Your task to perform on an android device: toggle pop-ups in chrome Image 0: 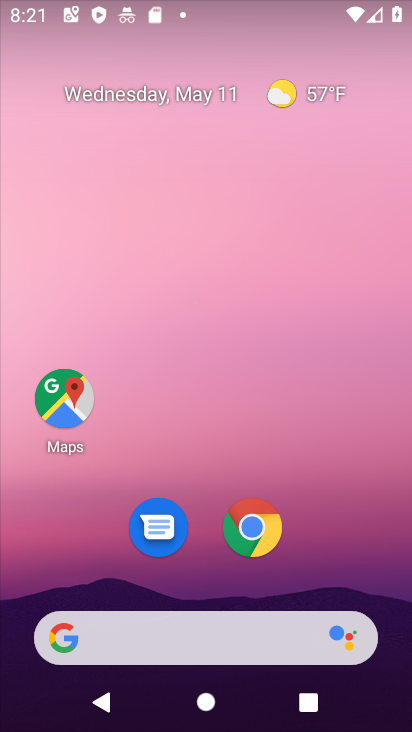
Step 0: click (260, 524)
Your task to perform on an android device: toggle pop-ups in chrome Image 1: 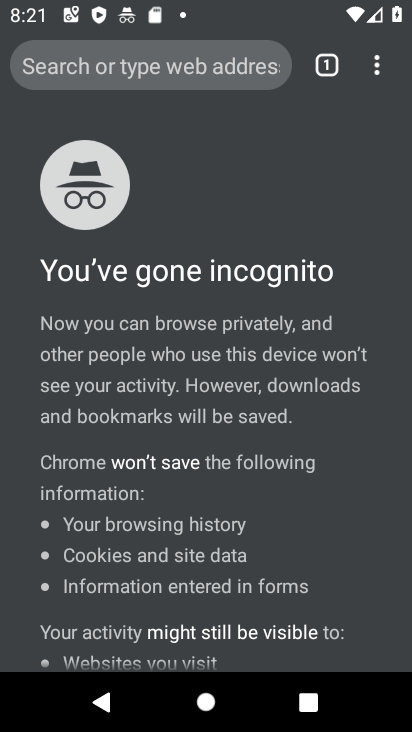
Step 1: click (384, 75)
Your task to perform on an android device: toggle pop-ups in chrome Image 2: 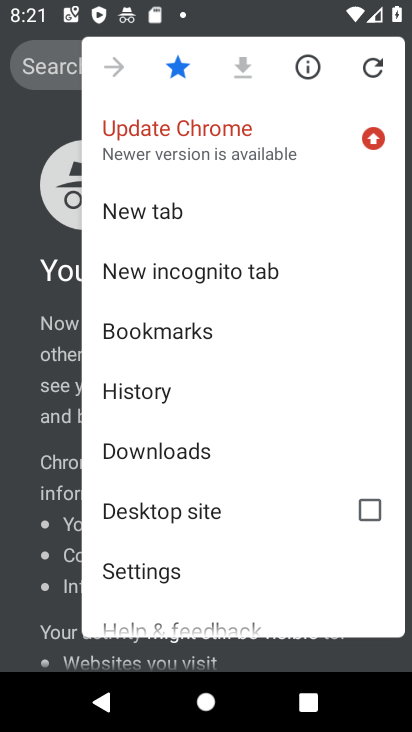
Step 2: drag from (219, 372) to (227, 264)
Your task to perform on an android device: toggle pop-ups in chrome Image 3: 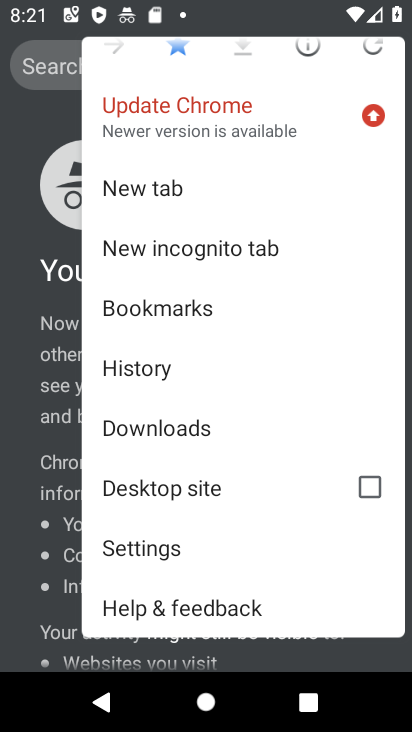
Step 3: click (143, 558)
Your task to perform on an android device: toggle pop-ups in chrome Image 4: 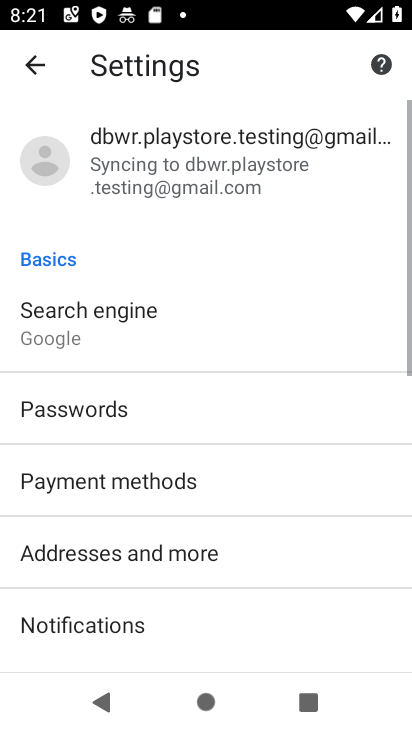
Step 4: drag from (143, 558) to (140, 124)
Your task to perform on an android device: toggle pop-ups in chrome Image 5: 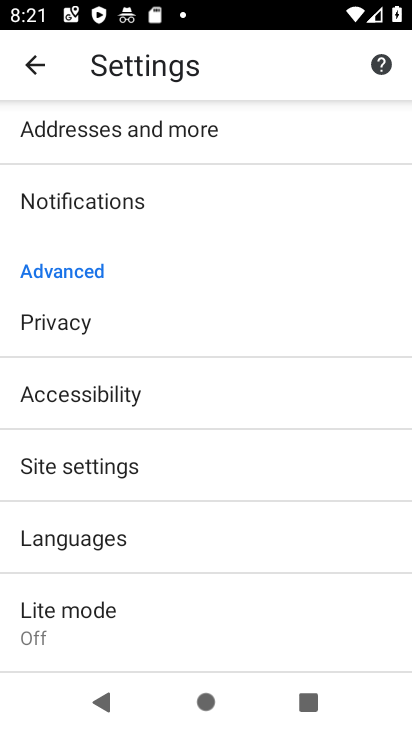
Step 5: click (106, 474)
Your task to perform on an android device: toggle pop-ups in chrome Image 6: 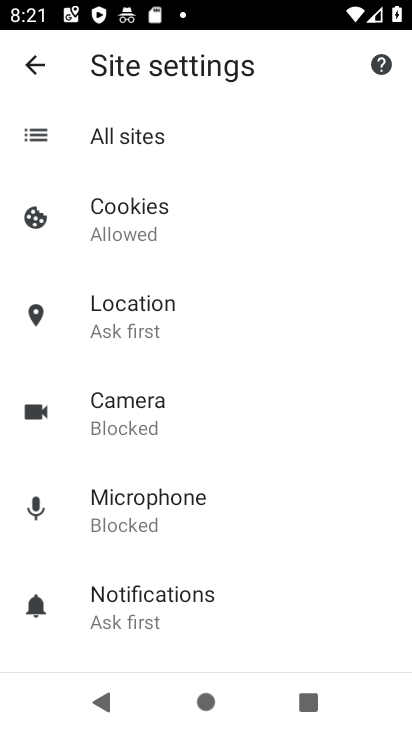
Step 6: drag from (171, 296) to (173, 234)
Your task to perform on an android device: toggle pop-ups in chrome Image 7: 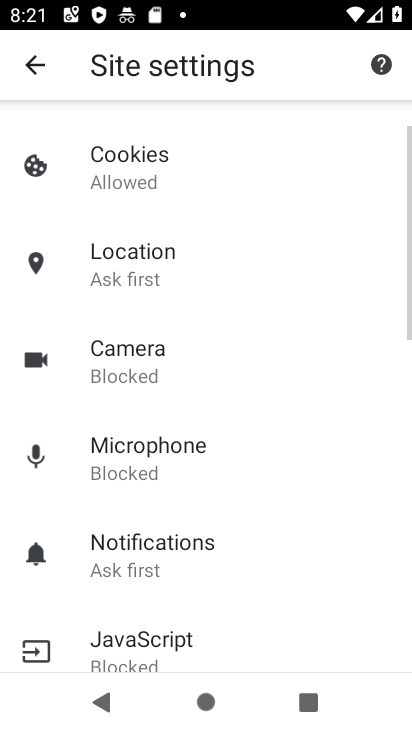
Step 7: drag from (231, 304) to (233, 211)
Your task to perform on an android device: toggle pop-ups in chrome Image 8: 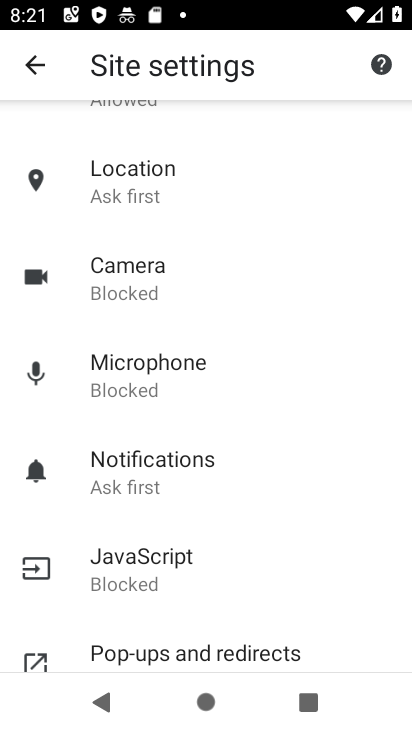
Step 8: drag from (221, 594) to (228, 408)
Your task to perform on an android device: toggle pop-ups in chrome Image 9: 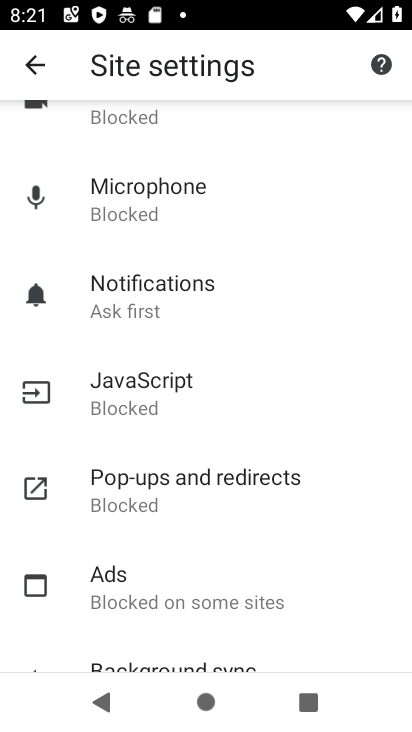
Step 9: click (138, 509)
Your task to perform on an android device: toggle pop-ups in chrome Image 10: 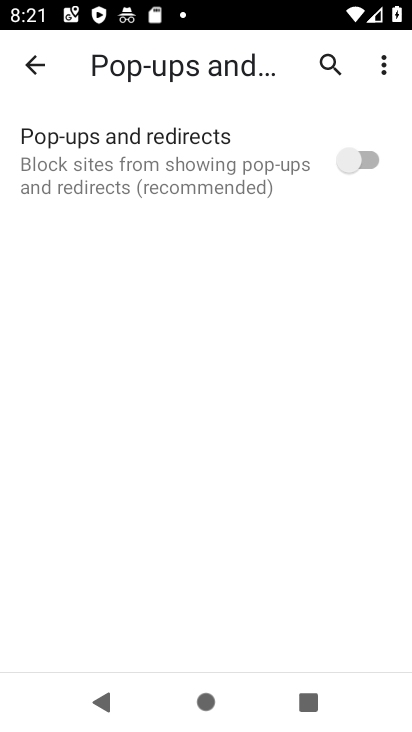
Step 10: click (359, 159)
Your task to perform on an android device: toggle pop-ups in chrome Image 11: 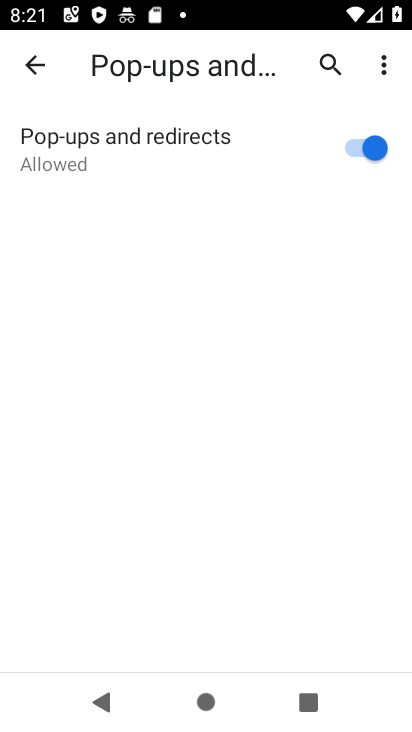
Step 11: task complete